Your task to perform on an android device: Open Google Chrome and open the bookmarks view Image 0: 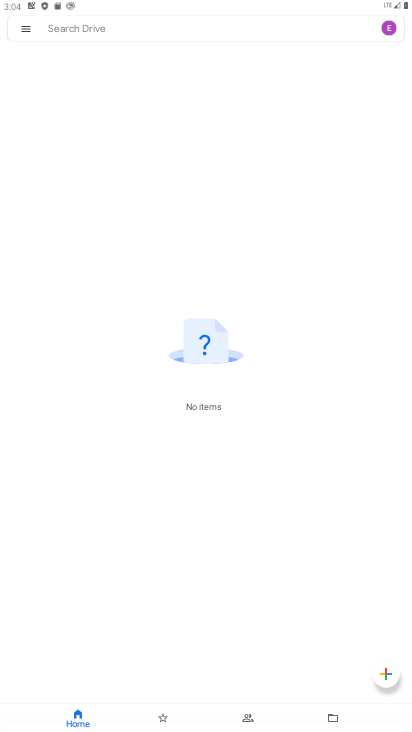
Step 0: drag from (178, 595) to (216, 345)
Your task to perform on an android device: Open Google Chrome and open the bookmarks view Image 1: 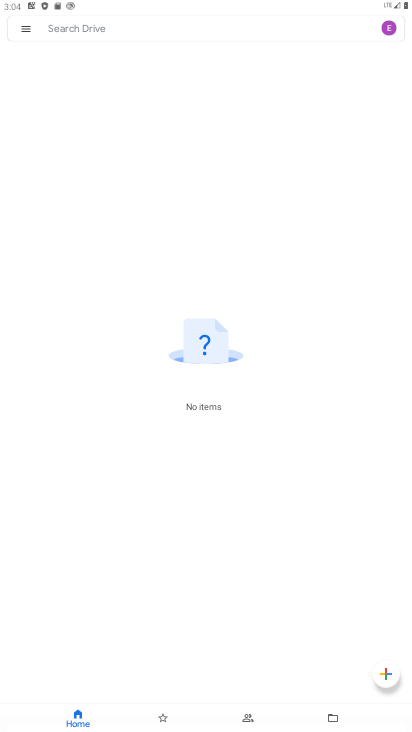
Step 1: press home button
Your task to perform on an android device: Open Google Chrome and open the bookmarks view Image 2: 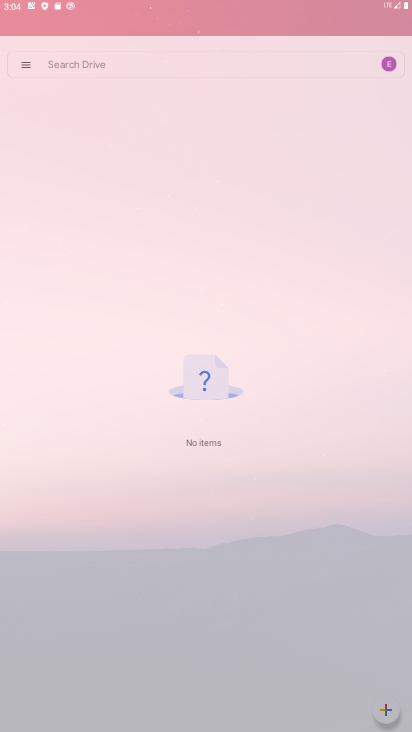
Step 2: drag from (259, 556) to (246, 184)
Your task to perform on an android device: Open Google Chrome and open the bookmarks view Image 3: 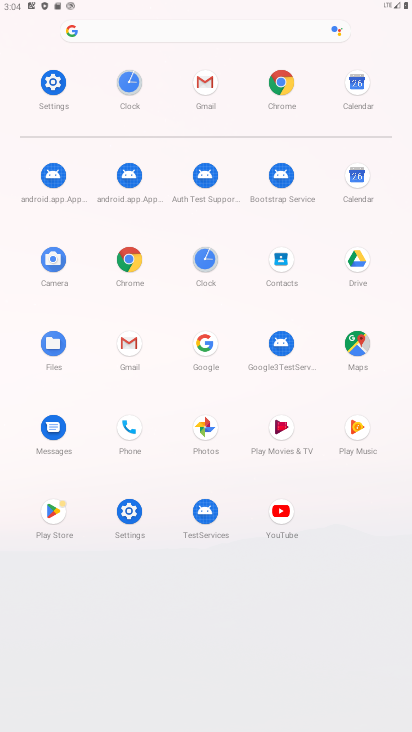
Step 3: click (125, 261)
Your task to perform on an android device: Open Google Chrome and open the bookmarks view Image 4: 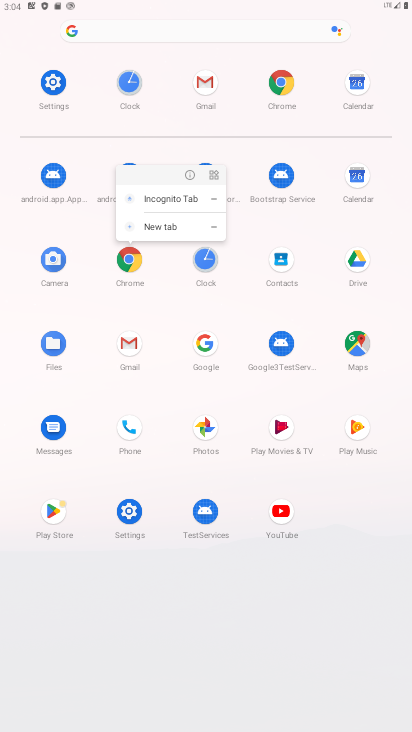
Step 4: click (193, 170)
Your task to perform on an android device: Open Google Chrome and open the bookmarks view Image 5: 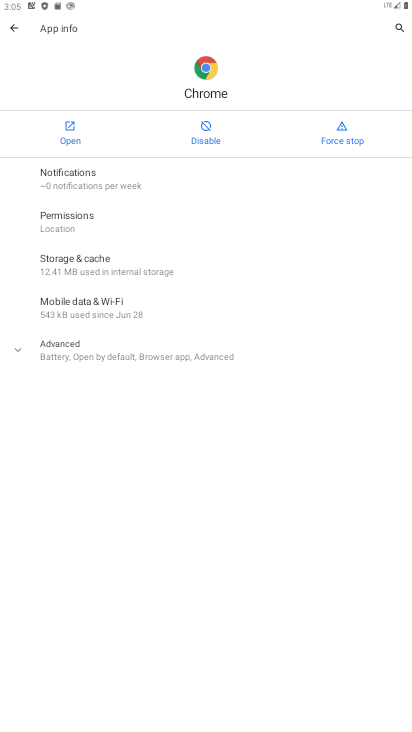
Step 5: click (75, 145)
Your task to perform on an android device: Open Google Chrome and open the bookmarks view Image 6: 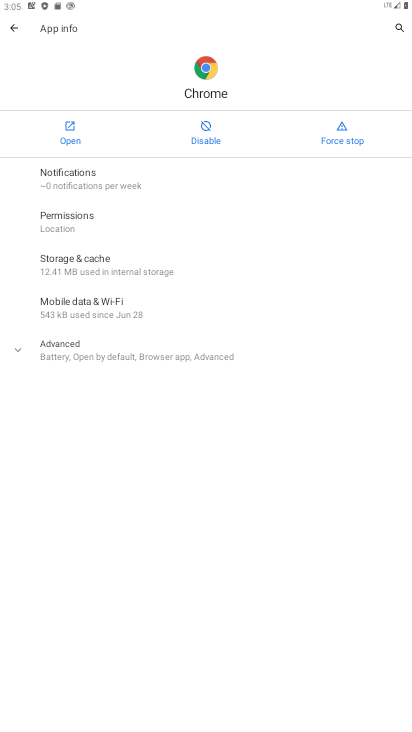
Step 6: click (75, 145)
Your task to perform on an android device: Open Google Chrome and open the bookmarks view Image 7: 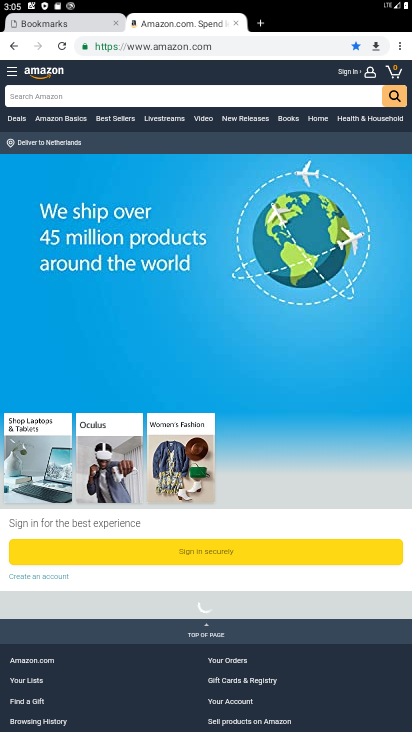
Step 7: task complete